Your task to perform on an android device: change the clock display to analog Image 0: 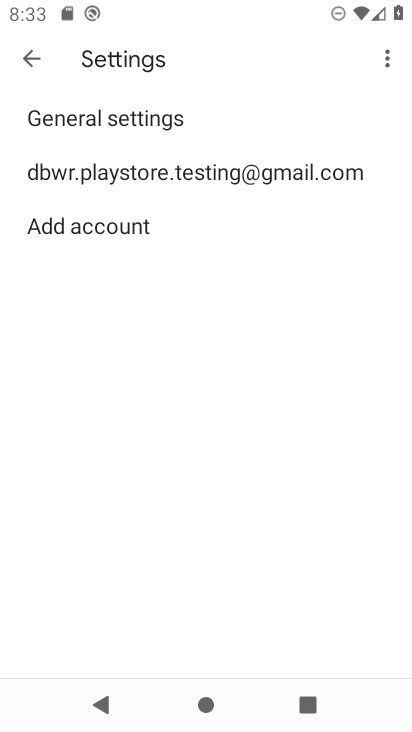
Step 0: press home button
Your task to perform on an android device: change the clock display to analog Image 1: 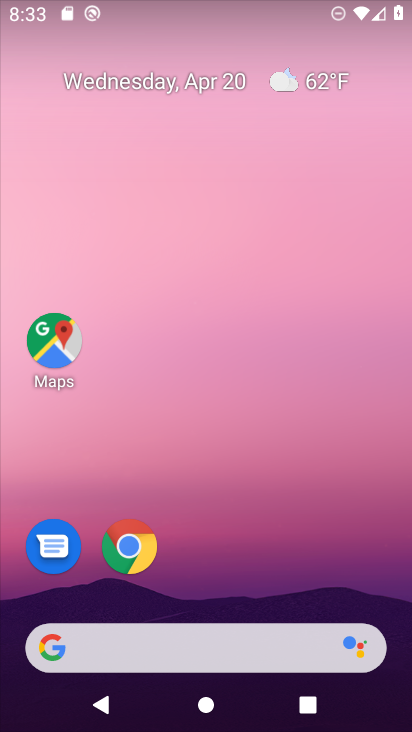
Step 1: drag from (239, 530) to (301, 91)
Your task to perform on an android device: change the clock display to analog Image 2: 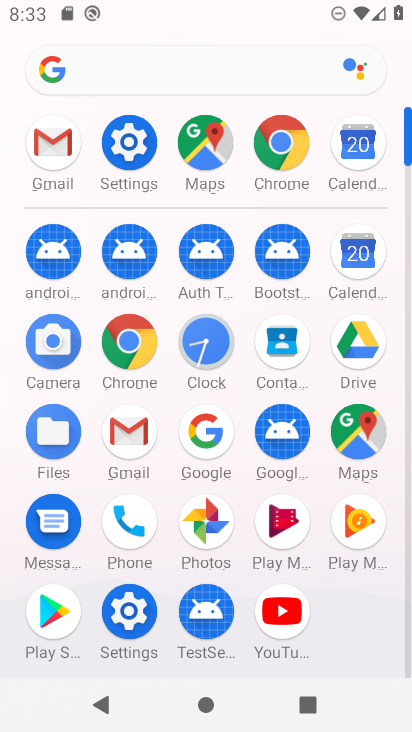
Step 2: click (207, 341)
Your task to perform on an android device: change the clock display to analog Image 3: 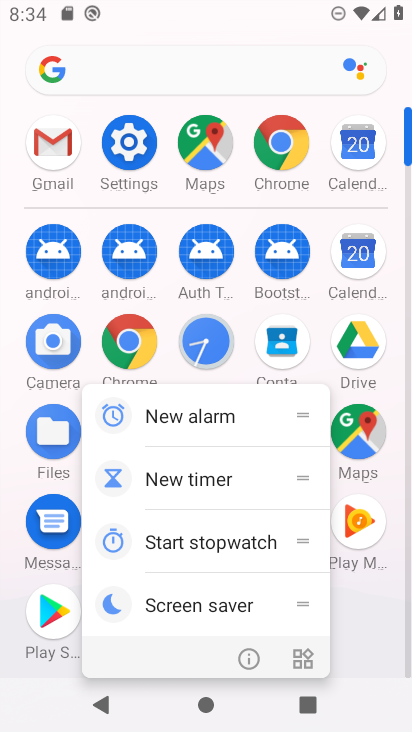
Step 3: click (207, 338)
Your task to perform on an android device: change the clock display to analog Image 4: 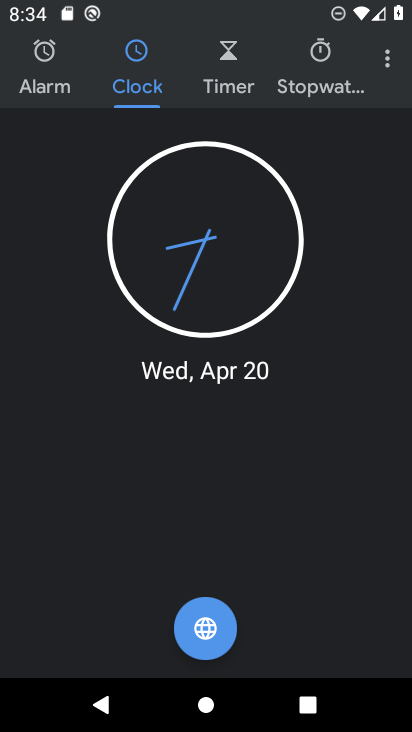
Step 4: task complete